Your task to perform on an android device: set default search engine in the chrome app Image 0: 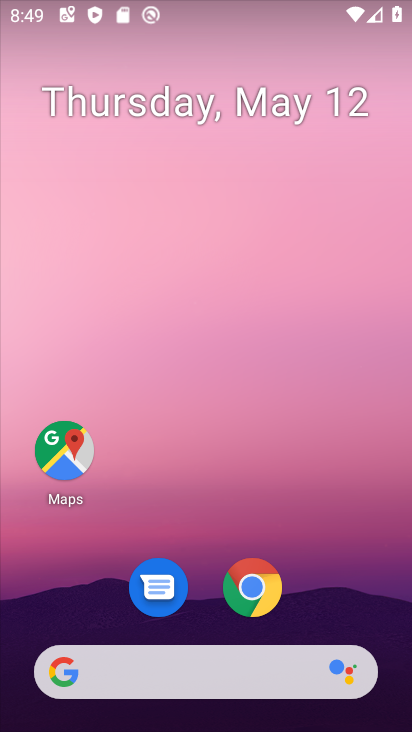
Step 0: drag from (343, 568) to (349, 236)
Your task to perform on an android device: set default search engine in the chrome app Image 1: 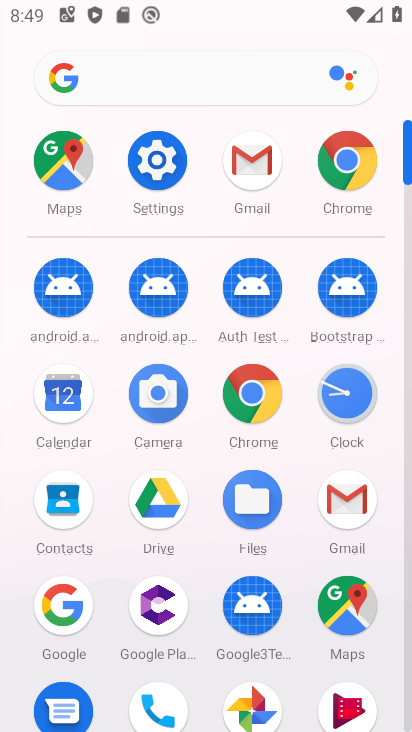
Step 1: click (350, 165)
Your task to perform on an android device: set default search engine in the chrome app Image 2: 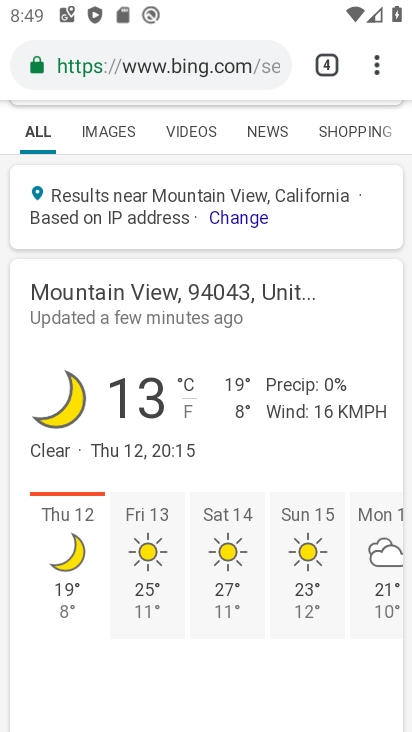
Step 2: click (381, 63)
Your task to perform on an android device: set default search engine in the chrome app Image 3: 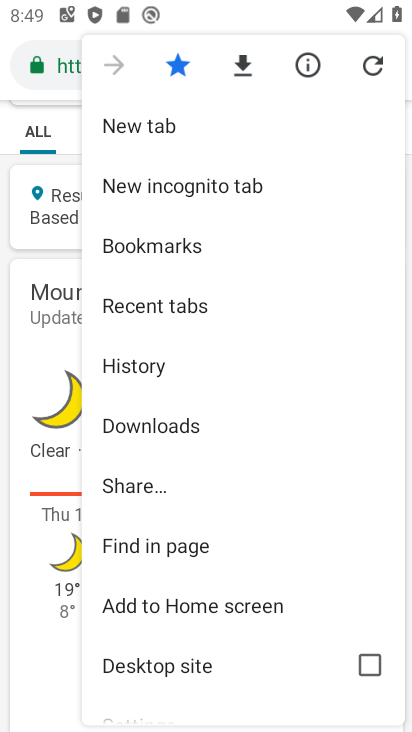
Step 3: drag from (220, 582) to (254, 248)
Your task to perform on an android device: set default search engine in the chrome app Image 4: 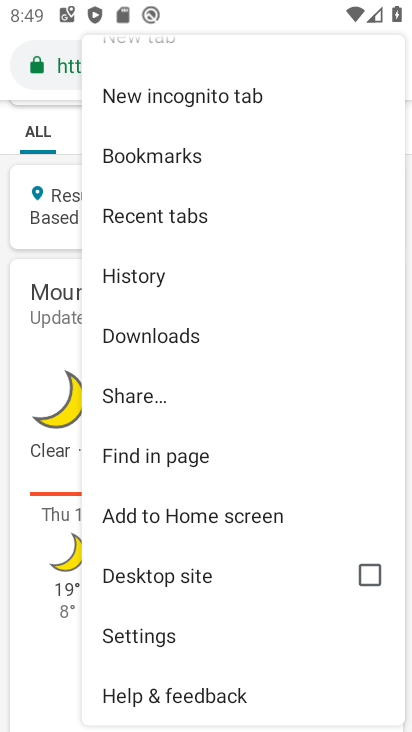
Step 4: click (168, 629)
Your task to perform on an android device: set default search engine in the chrome app Image 5: 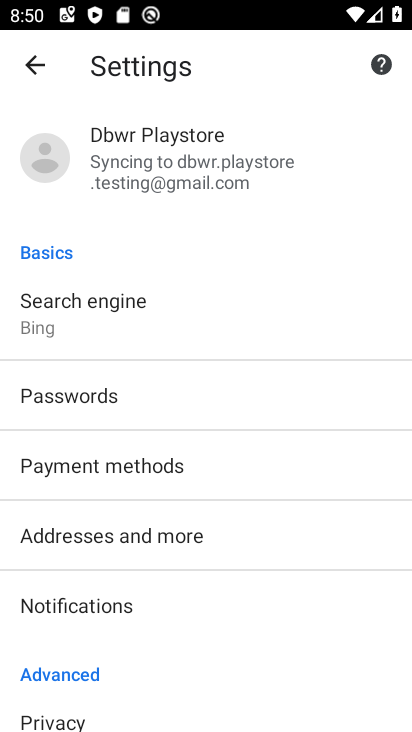
Step 5: click (35, 311)
Your task to perform on an android device: set default search engine in the chrome app Image 6: 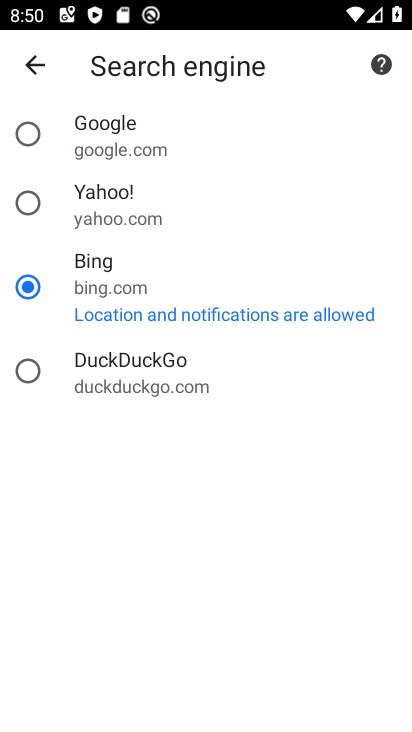
Step 6: click (92, 187)
Your task to perform on an android device: set default search engine in the chrome app Image 7: 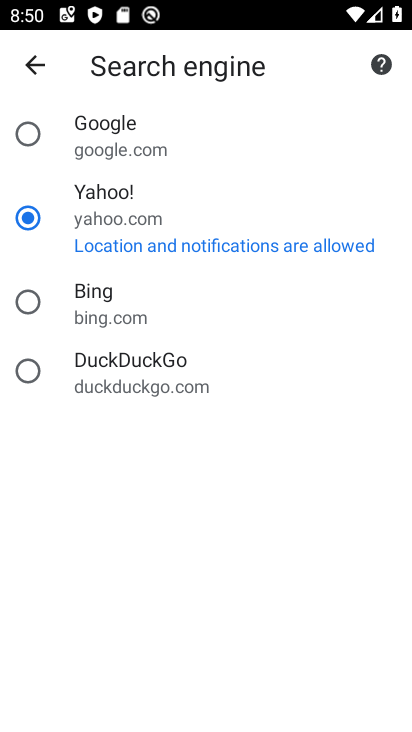
Step 7: task complete